Your task to perform on an android device: turn smart compose on in the gmail app Image 0: 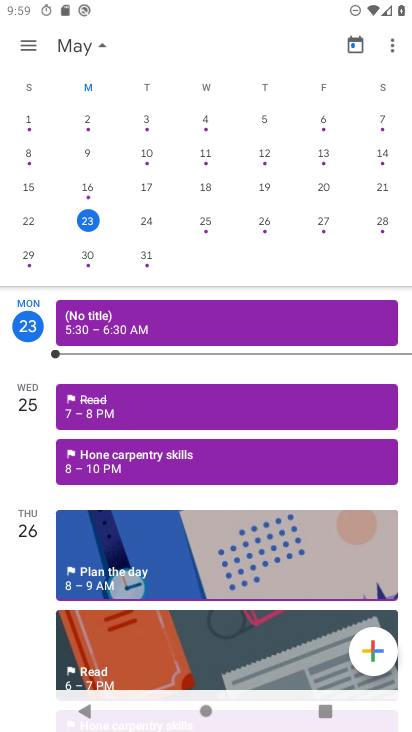
Step 0: press home button
Your task to perform on an android device: turn smart compose on in the gmail app Image 1: 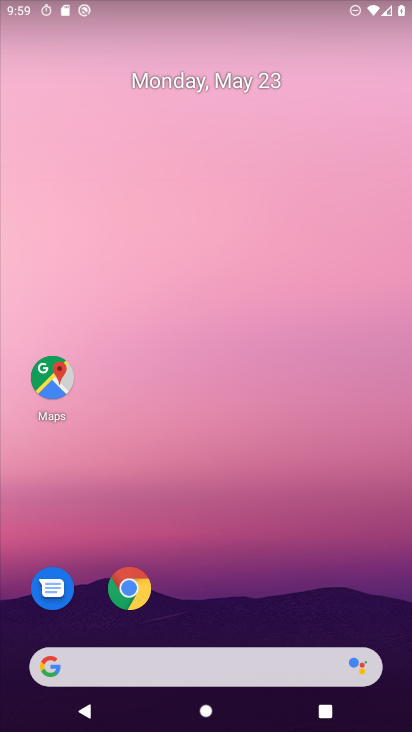
Step 1: drag from (394, 708) to (340, 6)
Your task to perform on an android device: turn smart compose on in the gmail app Image 2: 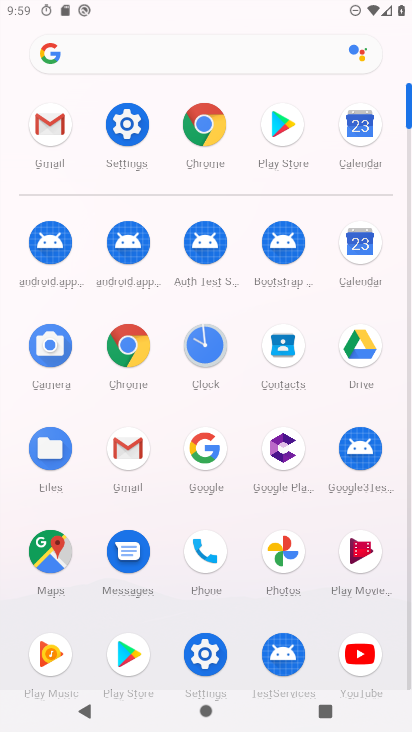
Step 2: click (47, 117)
Your task to perform on an android device: turn smart compose on in the gmail app Image 3: 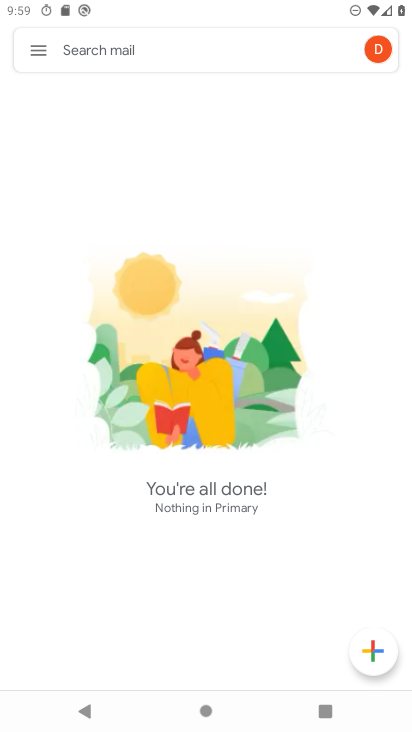
Step 3: click (35, 40)
Your task to perform on an android device: turn smart compose on in the gmail app Image 4: 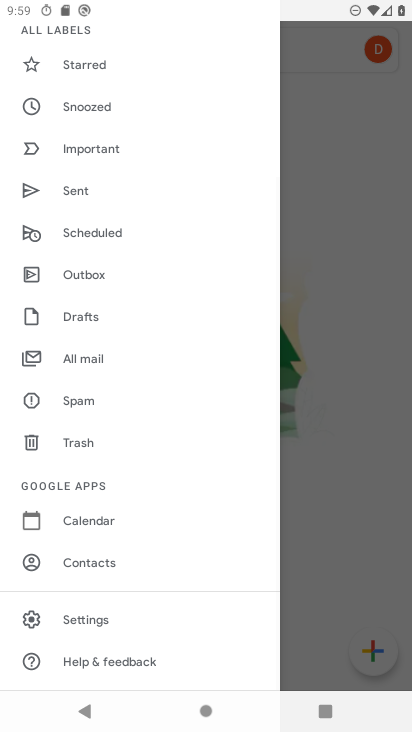
Step 4: click (103, 609)
Your task to perform on an android device: turn smart compose on in the gmail app Image 5: 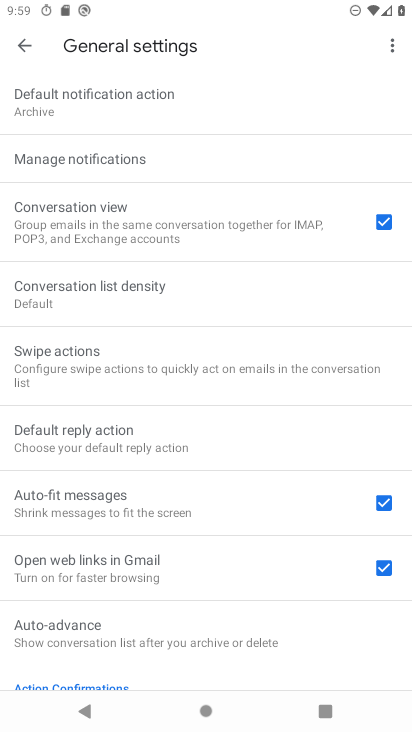
Step 5: click (22, 44)
Your task to perform on an android device: turn smart compose on in the gmail app Image 6: 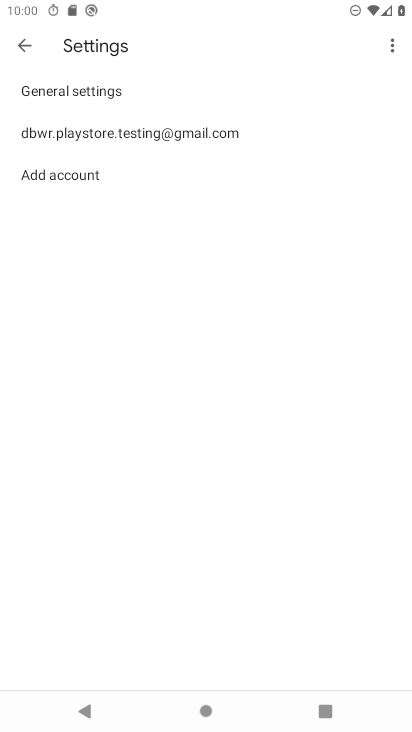
Step 6: click (62, 133)
Your task to perform on an android device: turn smart compose on in the gmail app Image 7: 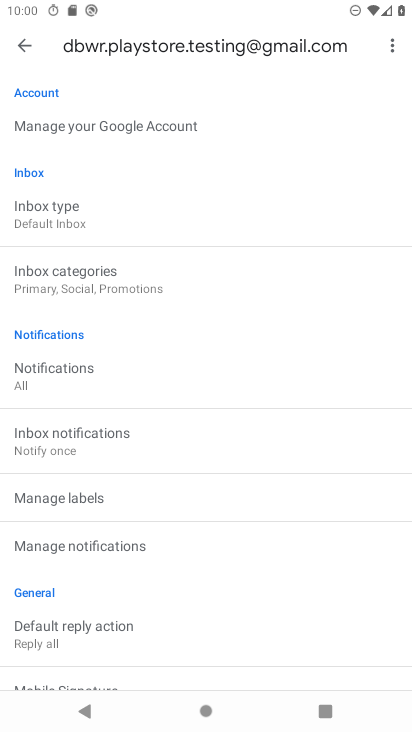
Step 7: task complete